Your task to perform on an android device: open app "Messenger Lite" (install if not already installed) and go to login screen Image 0: 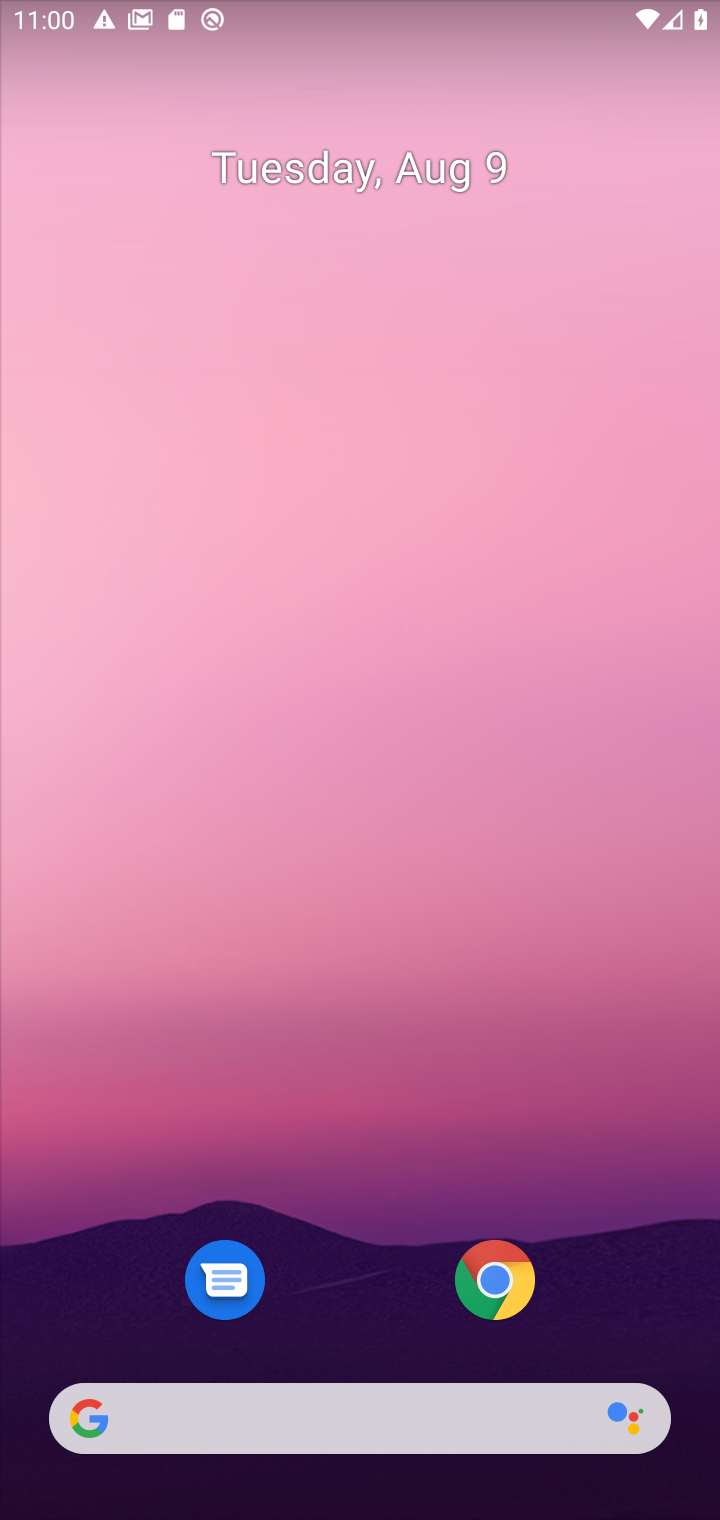
Step 0: drag from (365, 1335) to (324, 384)
Your task to perform on an android device: open app "Messenger Lite" (install if not already installed) and go to login screen Image 1: 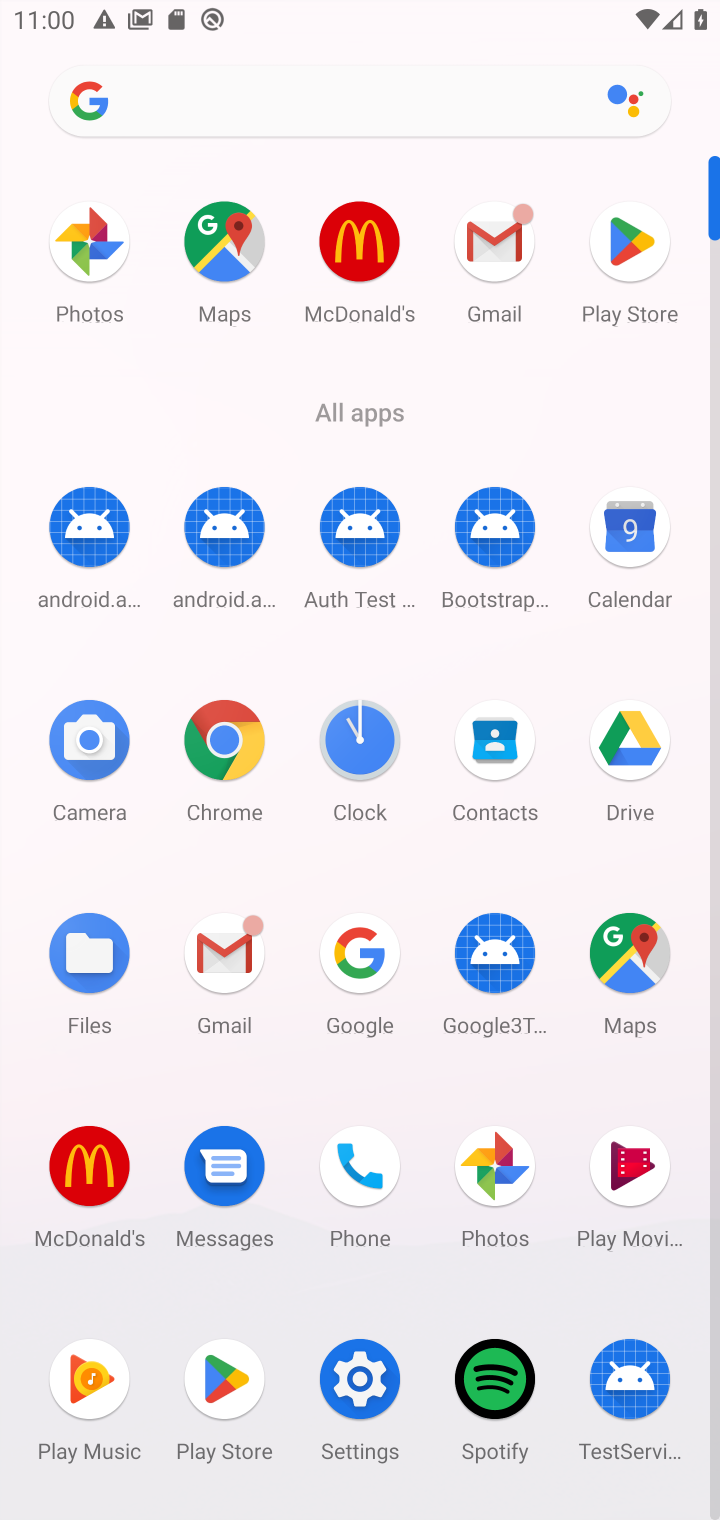
Step 1: click (221, 1378)
Your task to perform on an android device: open app "Messenger Lite" (install if not already installed) and go to login screen Image 2: 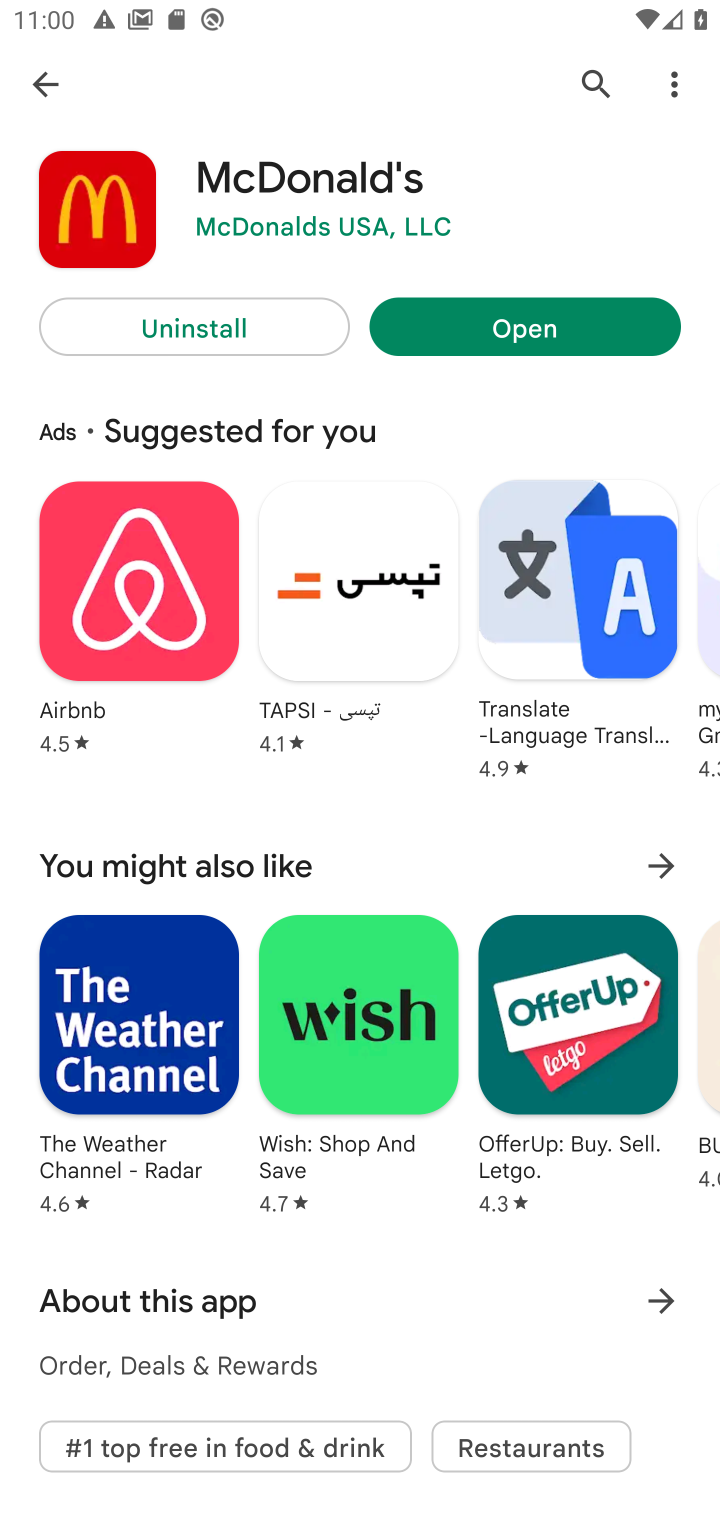
Step 2: click (594, 80)
Your task to perform on an android device: open app "Messenger Lite" (install if not already installed) and go to login screen Image 3: 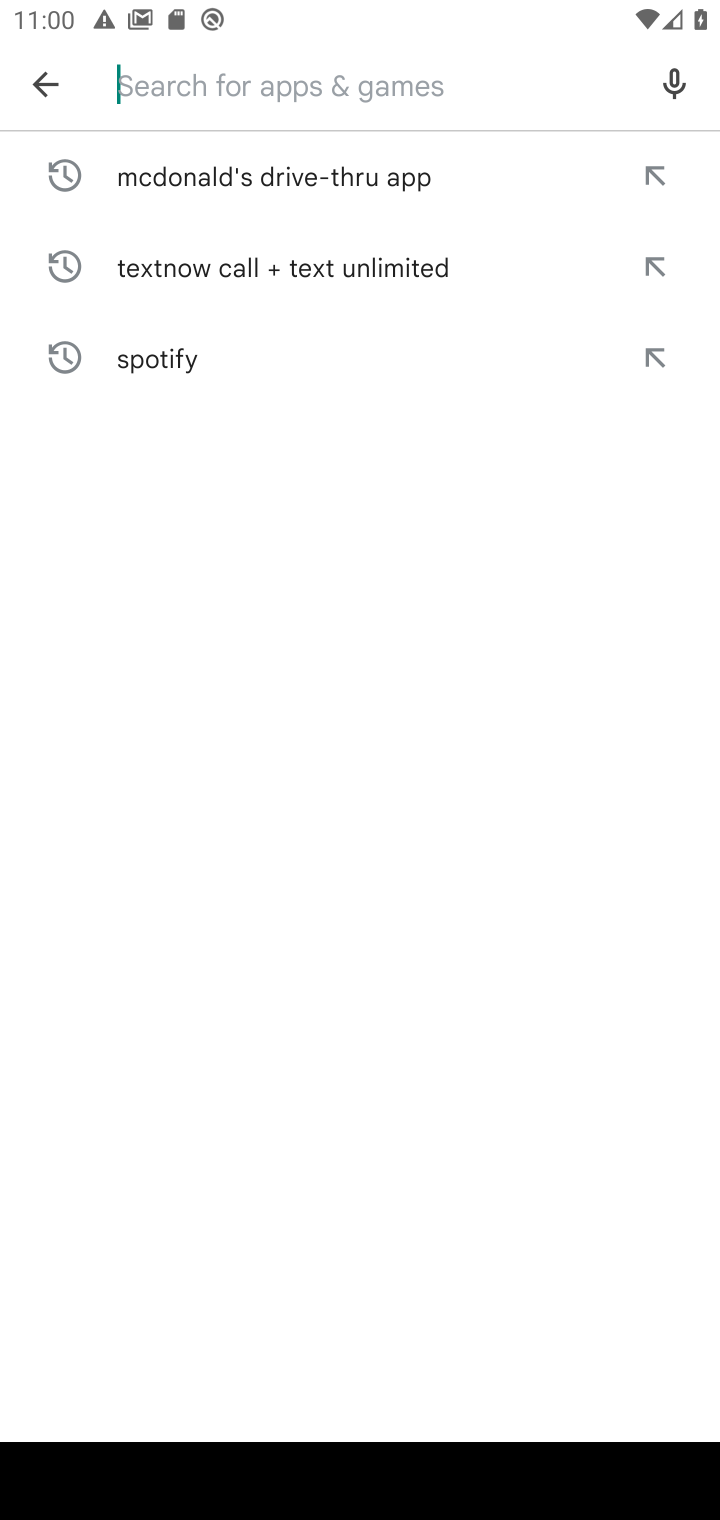
Step 3: type "Messenger Lite"
Your task to perform on an android device: open app "Messenger Lite" (install if not already installed) and go to login screen Image 4: 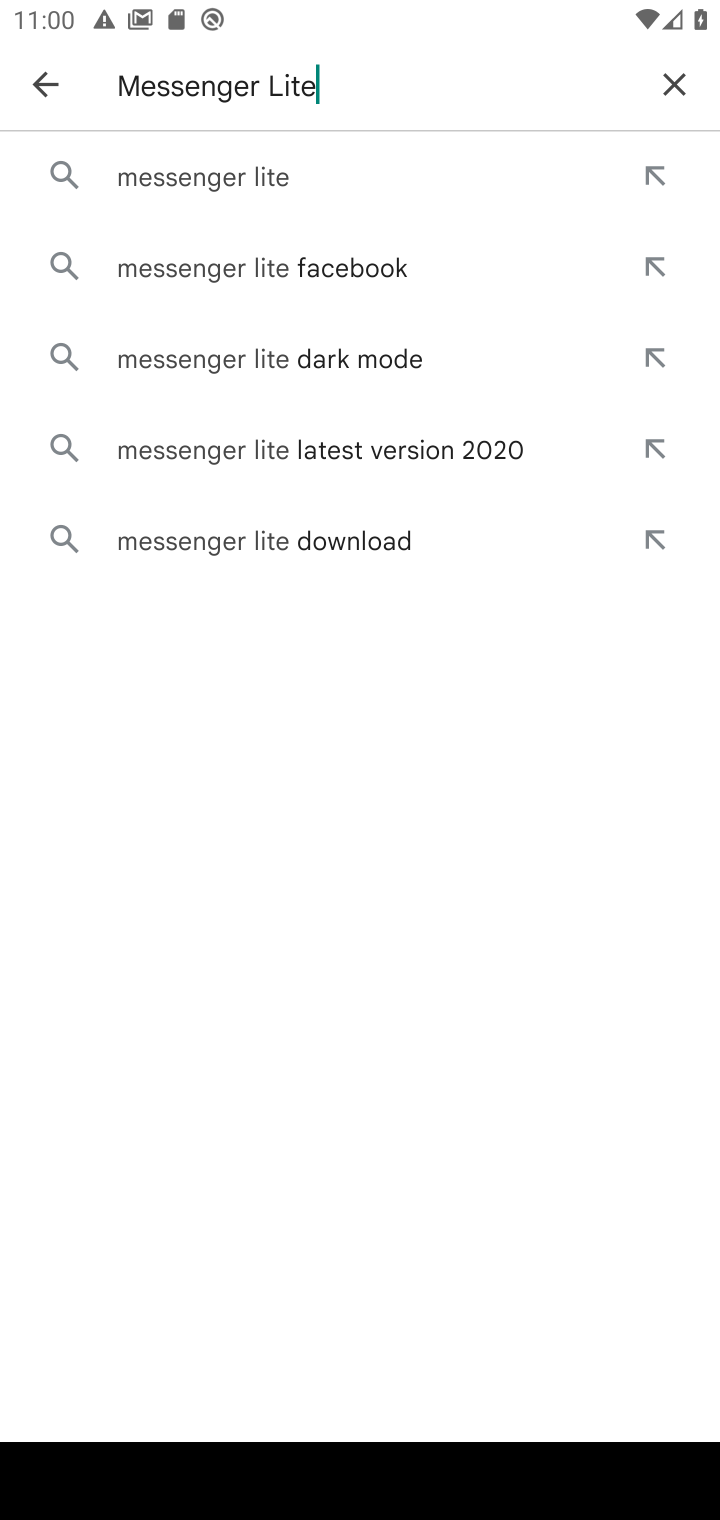
Step 4: click (178, 187)
Your task to perform on an android device: open app "Messenger Lite" (install if not already installed) and go to login screen Image 5: 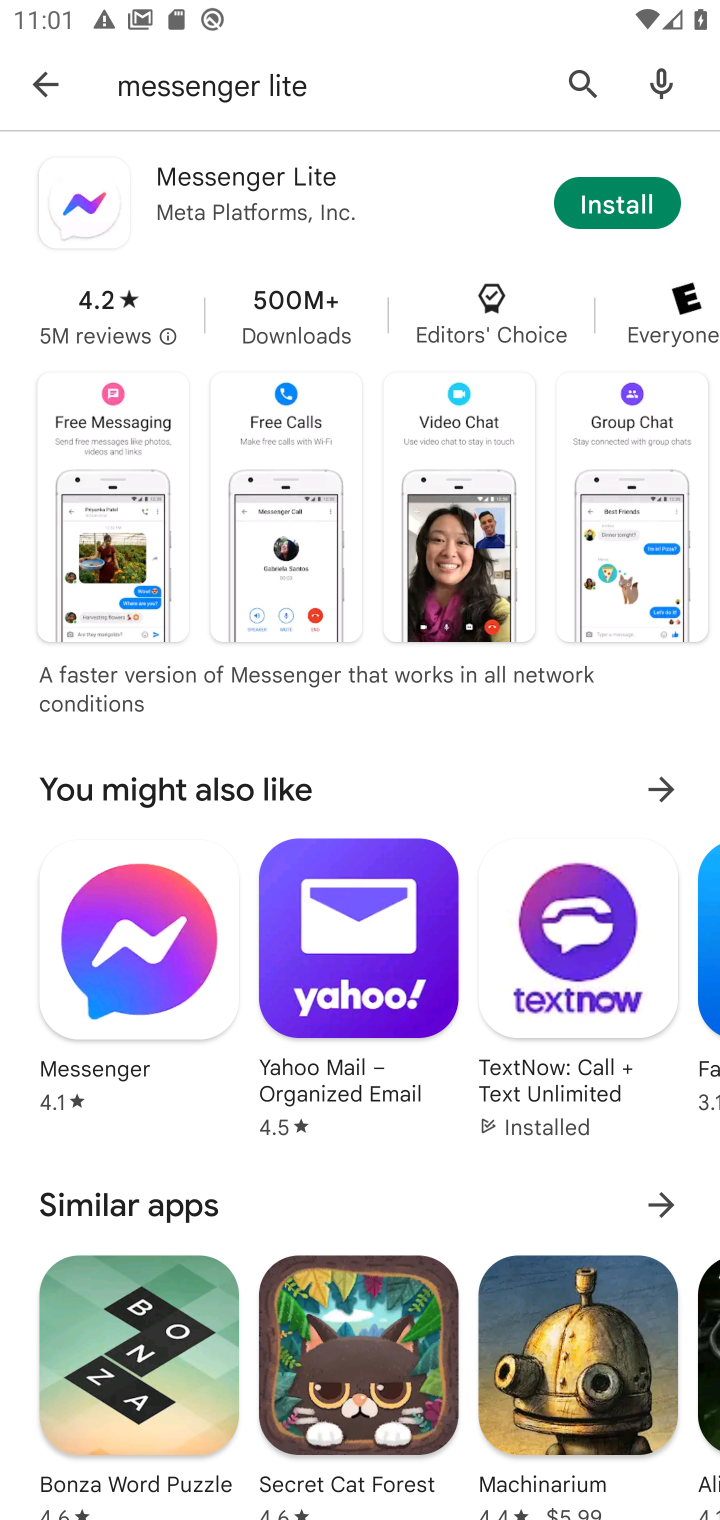
Step 5: click (635, 197)
Your task to perform on an android device: open app "Messenger Lite" (install if not already installed) and go to login screen Image 6: 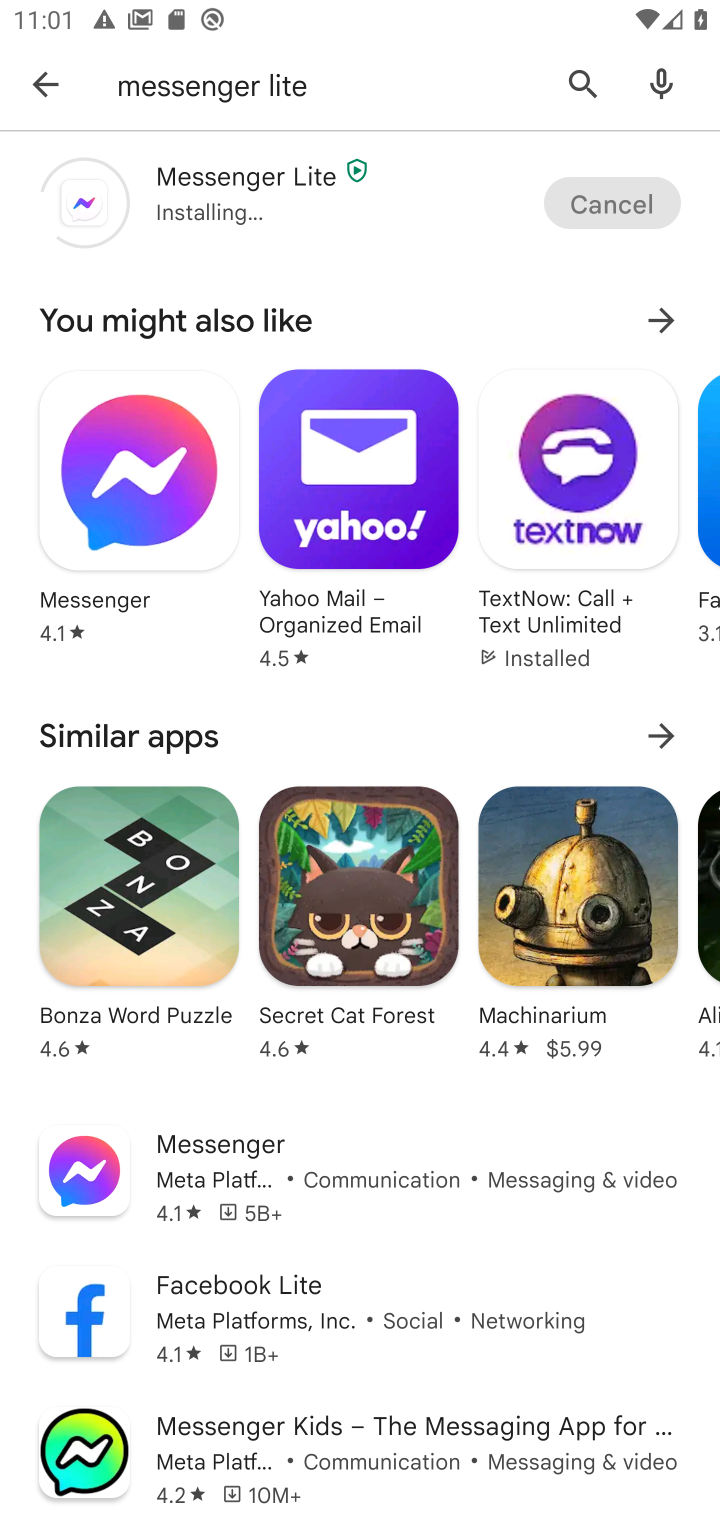
Step 6: click (221, 187)
Your task to perform on an android device: open app "Messenger Lite" (install if not already installed) and go to login screen Image 7: 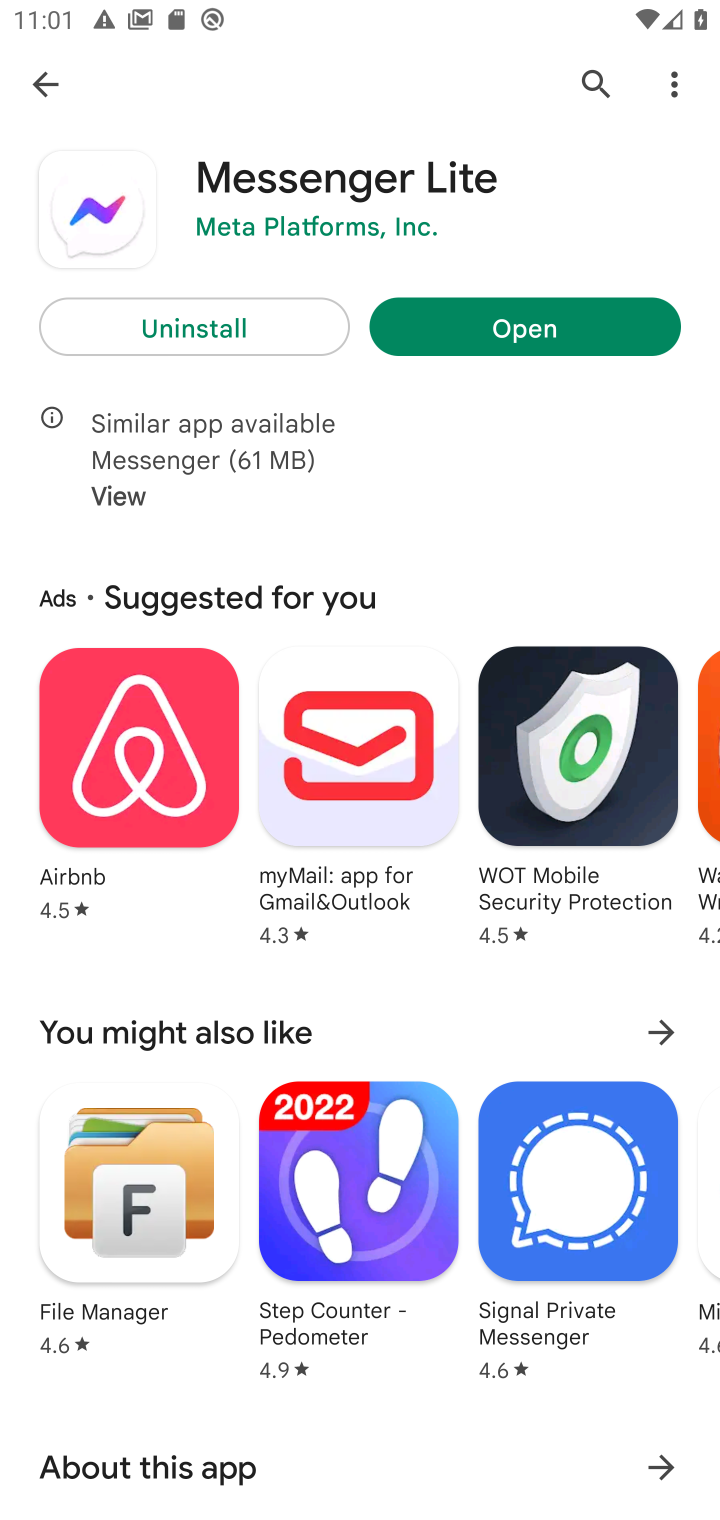
Step 7: click (455, 310)
Your task to perform on an android device: open app "Messenger Lite" (install if not already installed) and go to login screen Image 8: 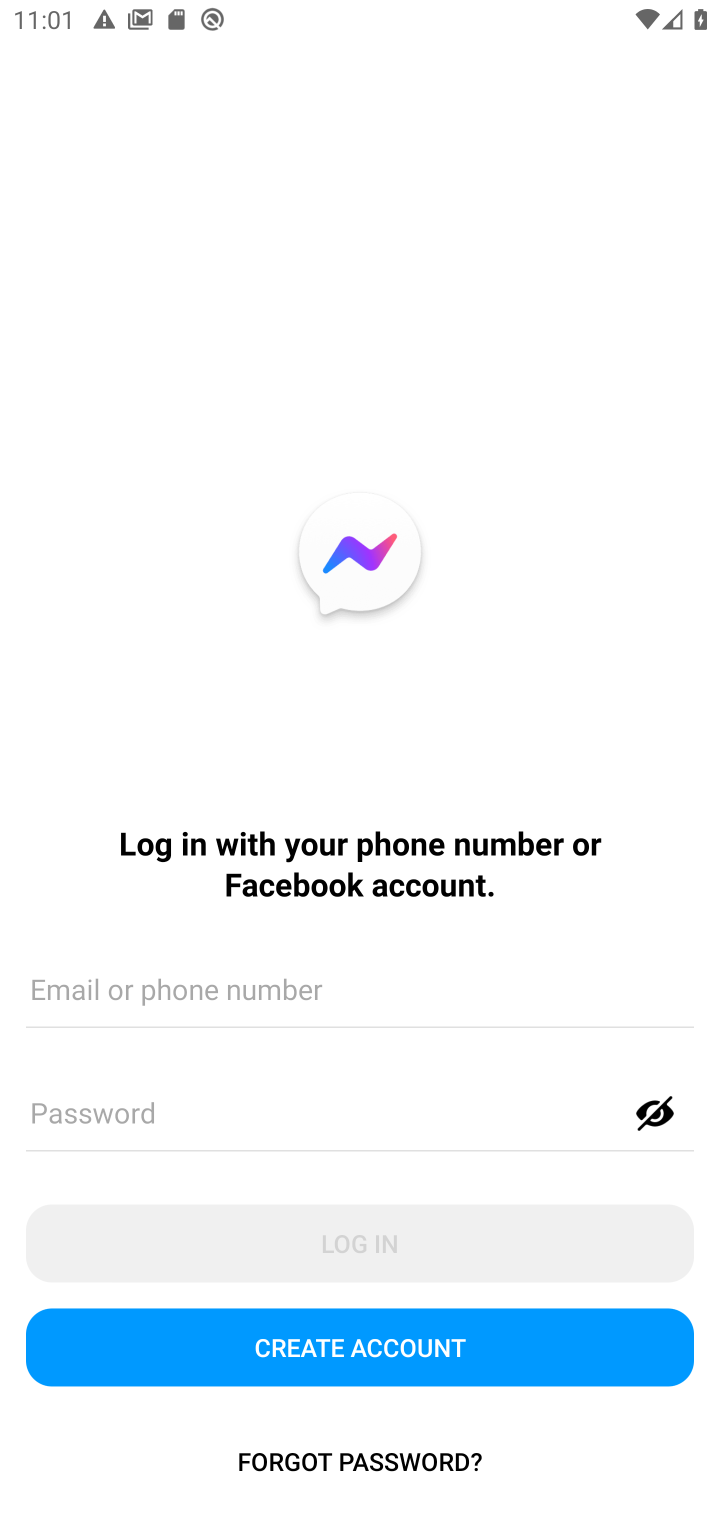
Step 8: task complete